Your task to perform on an android device: Open calendar and show me the first week of next month Image 0: 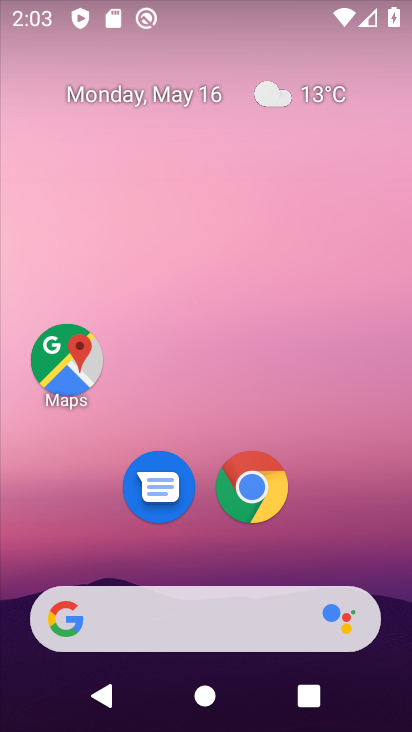
Step 0: drag from (323, 550) to (103, 116)
Your task to perform on an android device: Open calendar and show me the first week of next month Image 1: 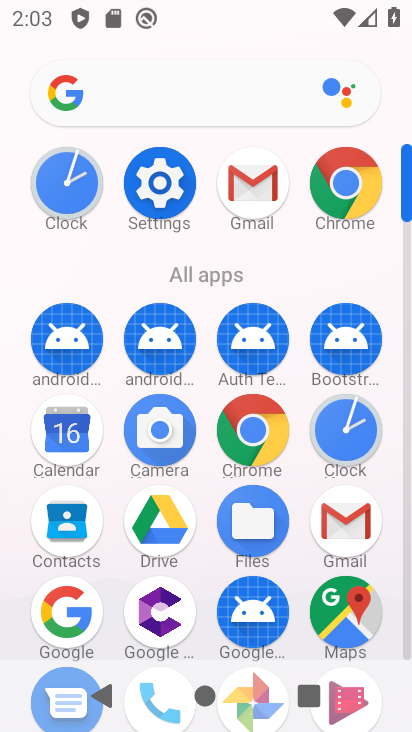
Step 1: click (72, 449)
Your task to perform on an android device: Open calendar and show me the first week of next month Image 2: 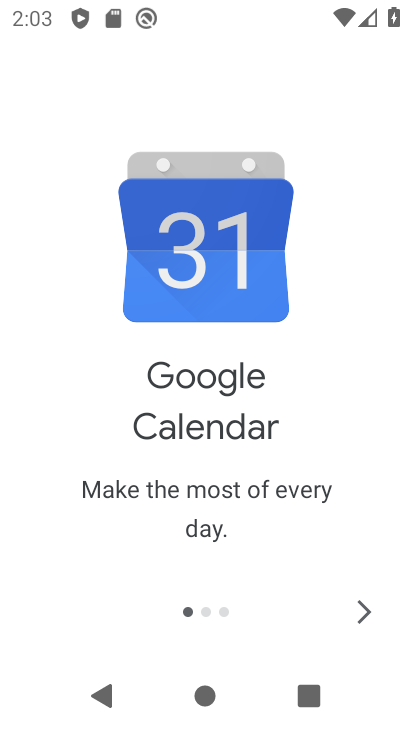
Step 2: click (332, 627)
Your task to perform on an android device: Open calendar and show me the first week of next month Image 3: 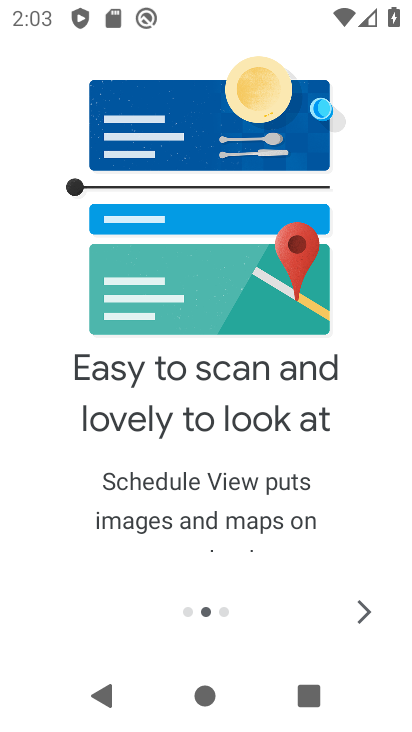
Step 3: click (365, 614)
Your task to perform on an android device: Open calendar and show me the first week of next month Image 4: 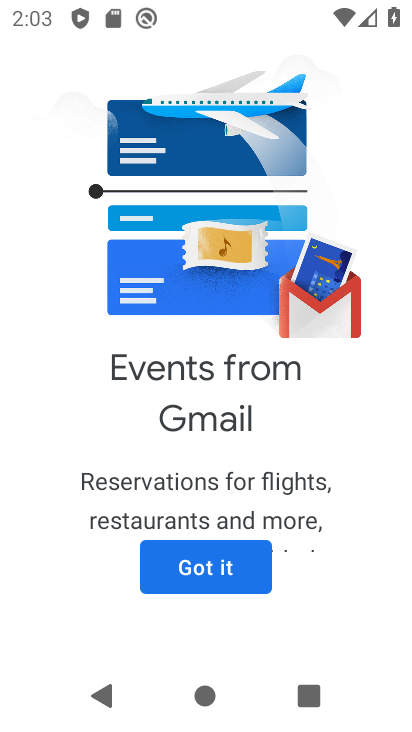
Step 4: click (234, 579)
Your task to perform on an android device: Open calendar and show me the first week of next month Image 5: 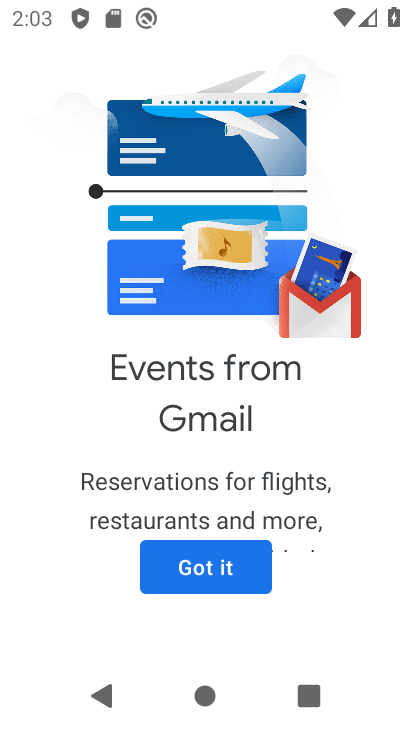
Step 5: click (234, 579)
Your task to perform on an android device: Open calendar and show me the first week of next month Image 6: 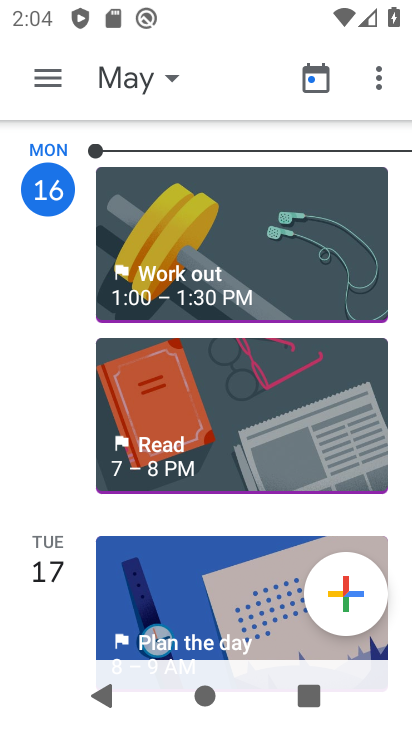
Step 6: click (224, 496)
Your task to perform on an android device: Open calendar and show me the first week of next month Image 7: 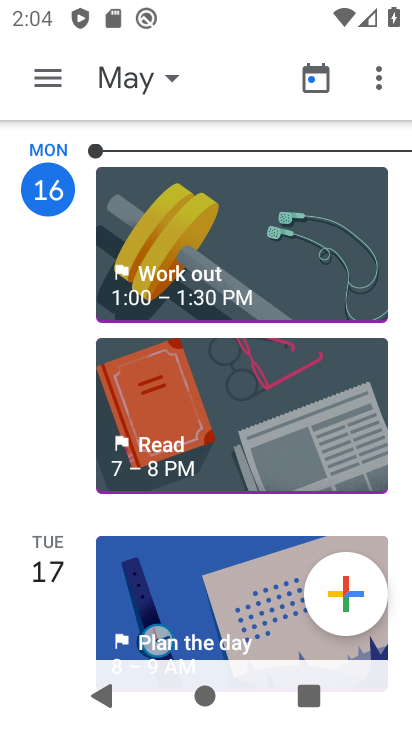
Step 7: click (139, 93)
Your task to perform on an android device: Open calendar and show me the first week of next month Image 8: 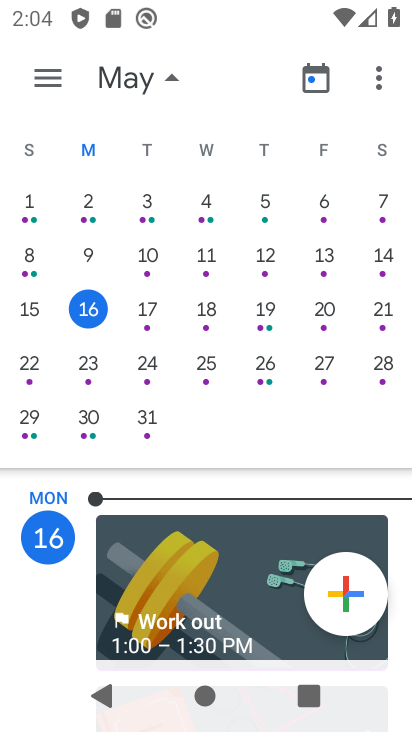
Step 8: drag from (232, 308) to (0, 307)
Your task to perform on an android device: Open calendar and show me the first week of next month Image 9: 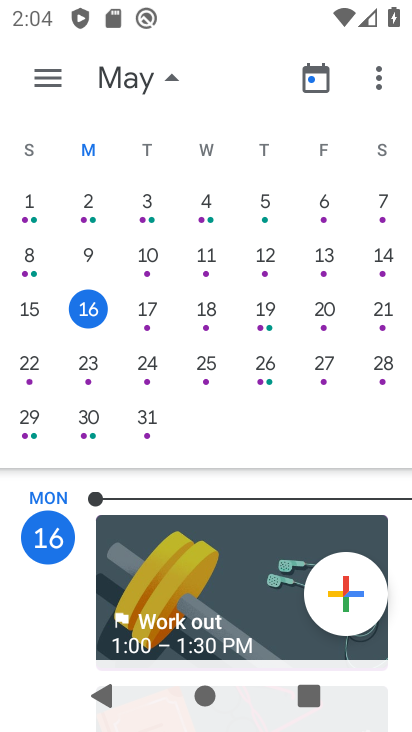
Step 9: drag from (346, 302) to (32, 306)
Your task to perform on an android device: Open calendar and show me the first week of next month Image 10: 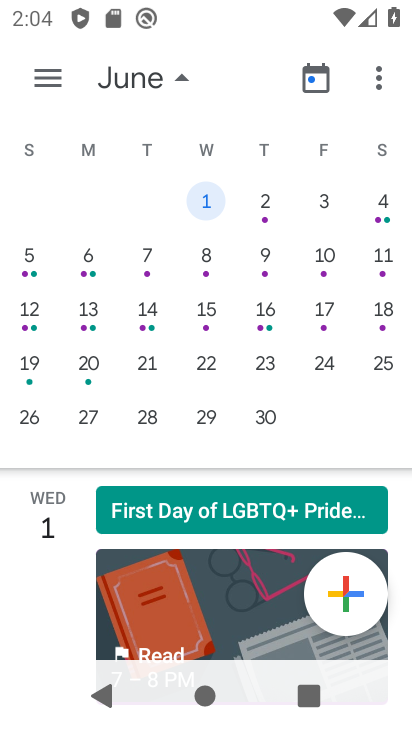
Step 10: click (123, 81)
Your task to perform on an android device: Open calendar and show me the first week of next month Image 11: 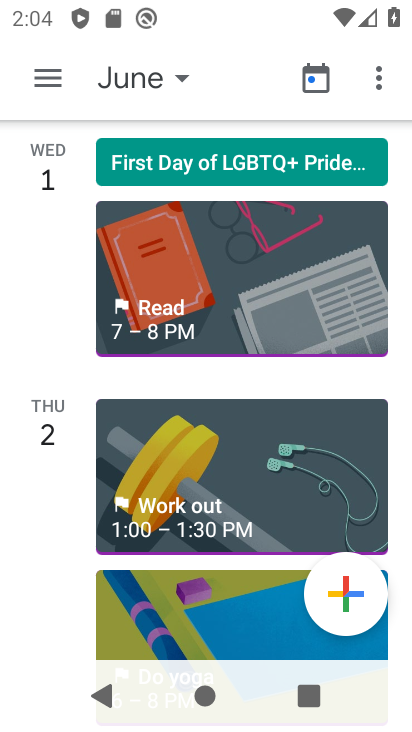
Step 11: click (52, 80)
Your task to perform on an android device: Open calendar and show me the first week of next month Image 12: 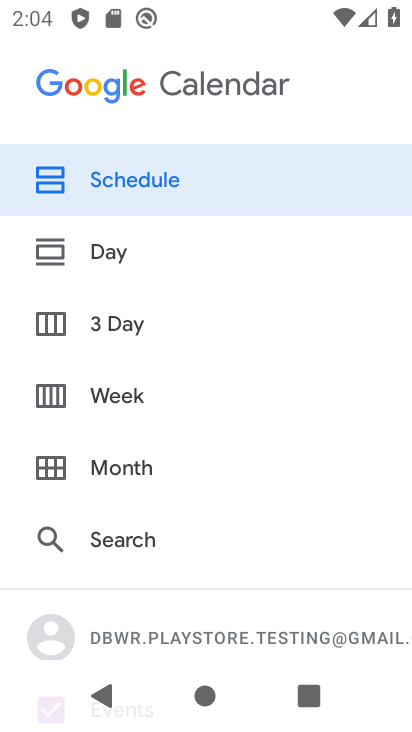
Step 12: click (77, 395)
Your task to perform on an android device: Open calendar and show me the first week of next month Image 13: 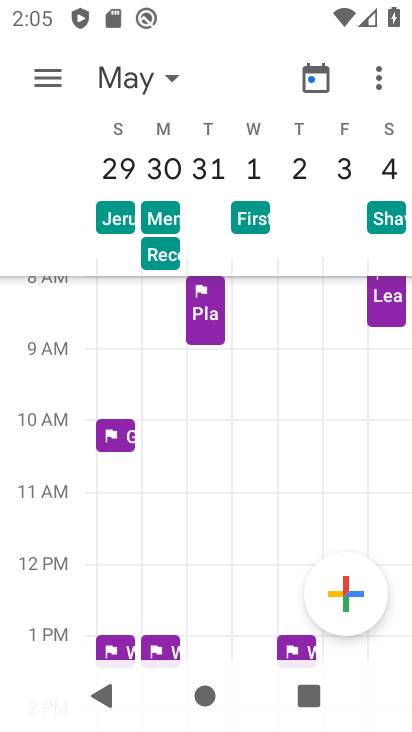
Step 13: task complete